Your task to perform on an android device: Show me productivity apps on the Play Store Image 0: 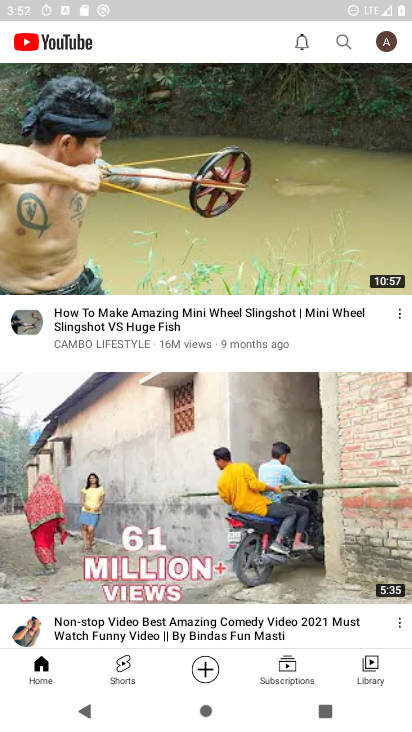
Step 0: press home button
Your task to perform on an android device: Show me productivity apps on the Play Store Image 1: 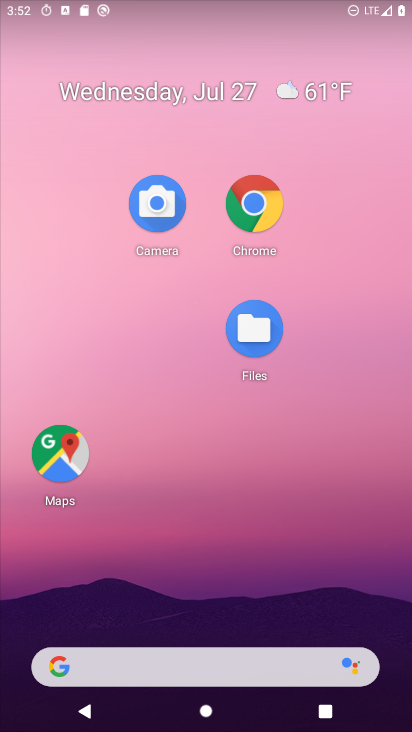
Step 1: drag from (213, 618) to (187, 126)
Your task to perform on an android device: Show me productivity apps on the Play Store Image 2: 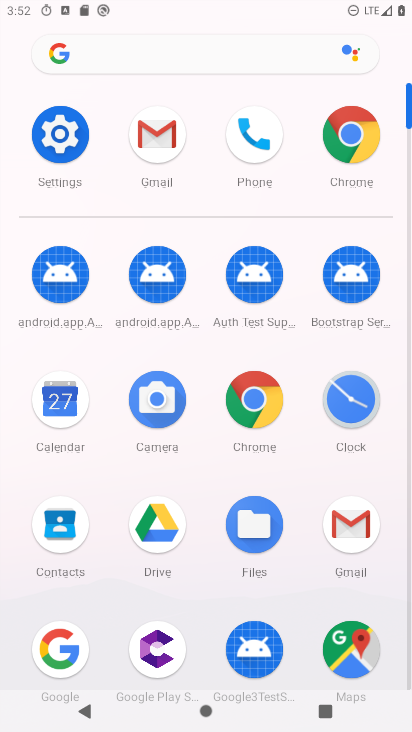
Step 2: drag from (129, 575) to (149, 199)
Your task to perform on an android device: Show me productivity apps on the Play Store Image 3: 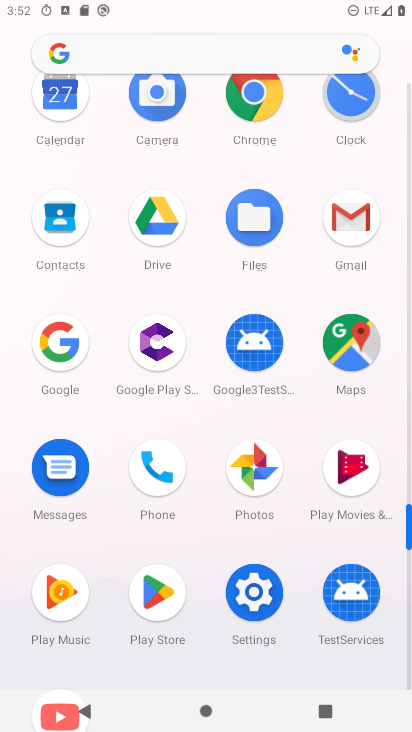
Step 3: click (170, 577)
Your task to perform on an android device: Show me productivity apps on the Play Store Image 4: 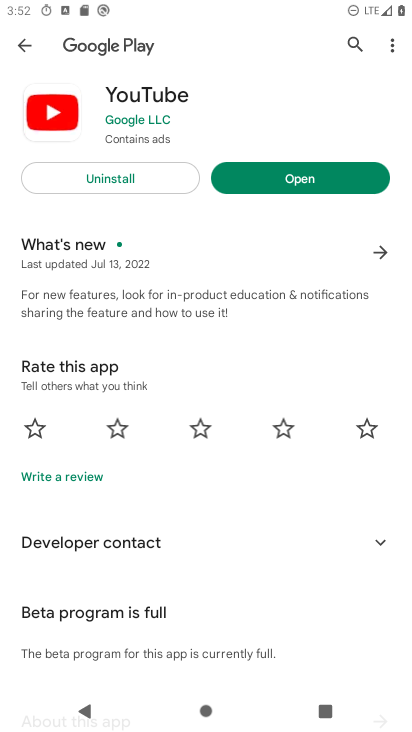
Step 4: click (19, 54)
Your task to perform on an android device: Show me productivity apps on the Play Store Image 5: 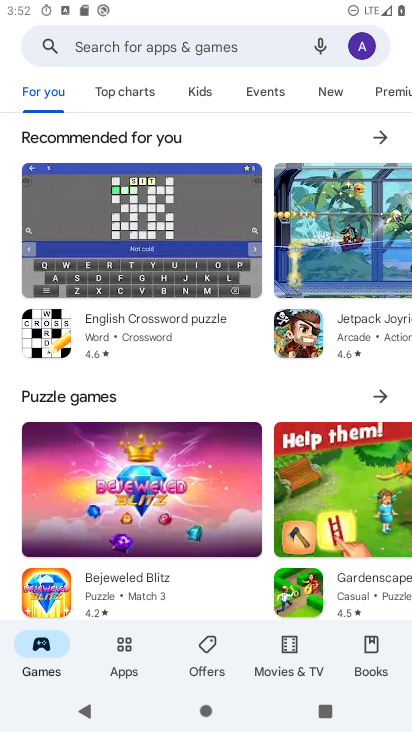
Step 5: click (112, 634)
Your task to perform on an android device: Show me productivity apps on the Play Store Image 6: 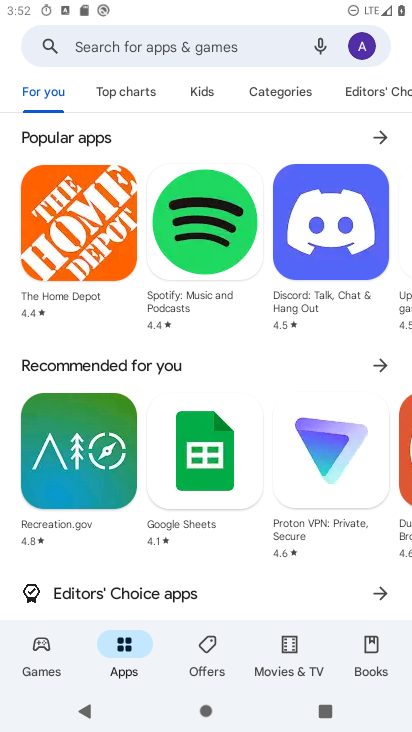
Step 6: click (295, 93)
Your task to perform on an android device: Show me productivity apps on the Play Store Image 7: 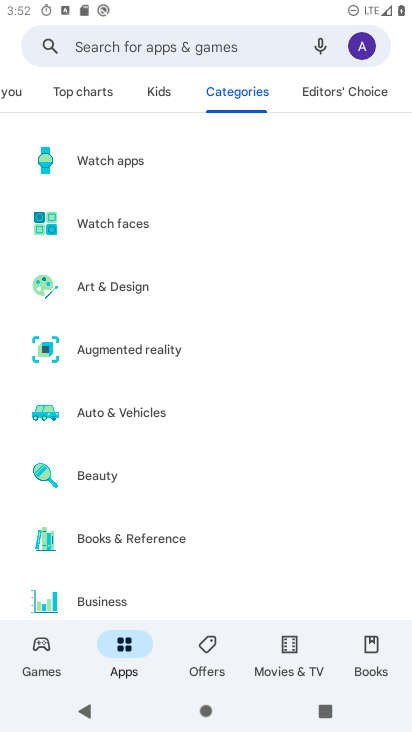
Step 7: drag from (189, 525) to (212, 195)
Your task to perform on an android device: Show me productivity apps on the Play Store Image 8: 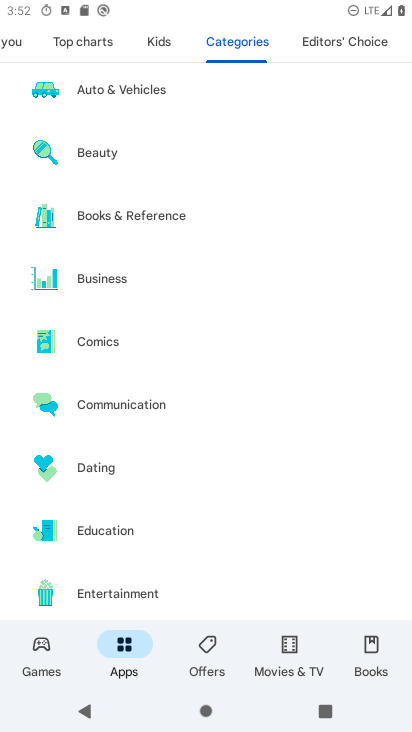
Step 8: drag from (194, 543) to (208, 216)
Your task to perform on an android device: Show me productivity apps on the Play Store Image 9: 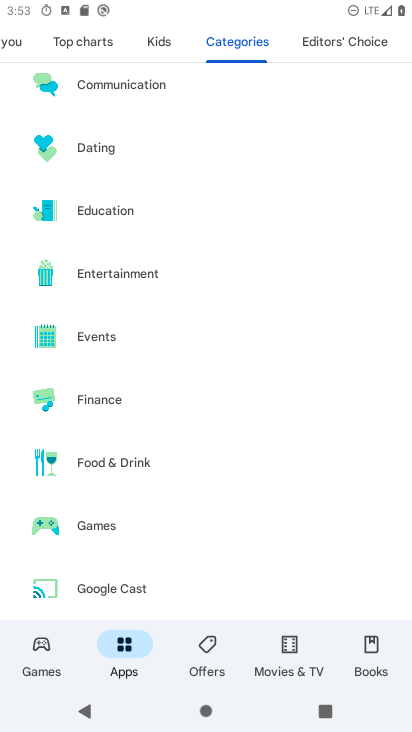
Step 9: drag from (163, 534) to (183, 271)
Your task to perform on an android device: Show me productivity apps on the Play Store Image 10: 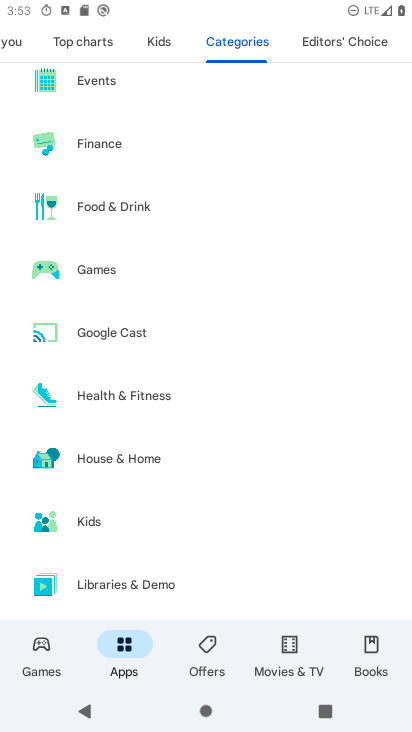
Step 10: drag from (155, 549) to (165, 160)
Your task to perform on an android device: Show me productivity apps on the Play Store Image 11: 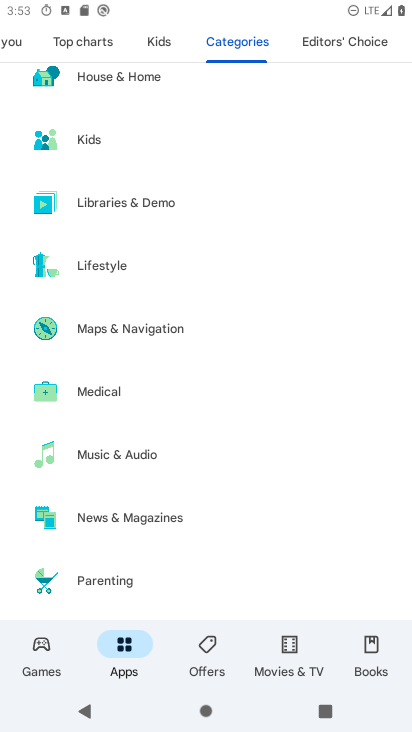
Step 11: drag from (186, 513) to (201, 190)
Your task to perform on an android device: Show me productivity apps on the Play Store Image 12: 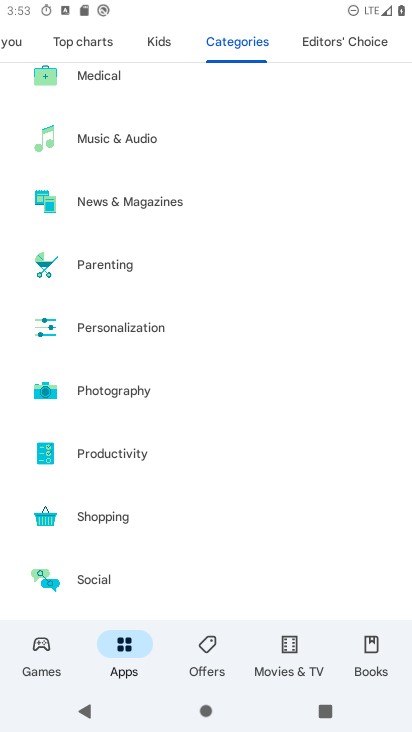
Step 12: click (165, 448)
Your task to perform on an android device: Show me productivity apps on the Play Store Image 13: 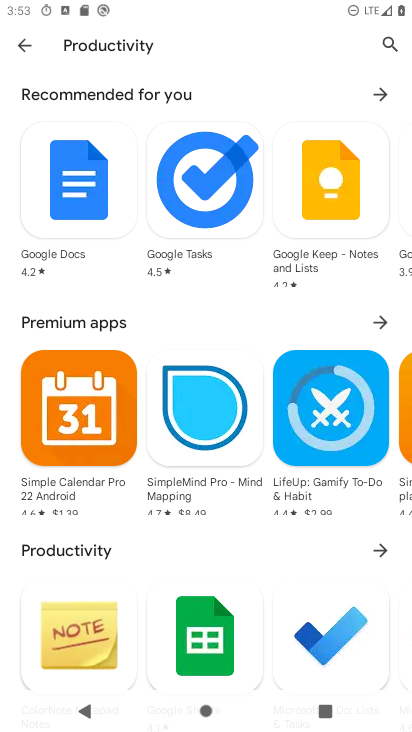
Step 13: task complete